Your task to perform on an android device: turn on sleep mode Image 0: 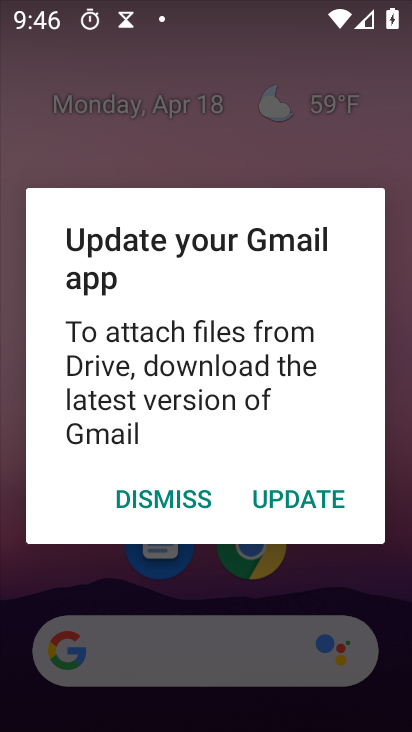
Step 0: press home button
Your task to perform on an android device: turn on sleep mode Image 1: 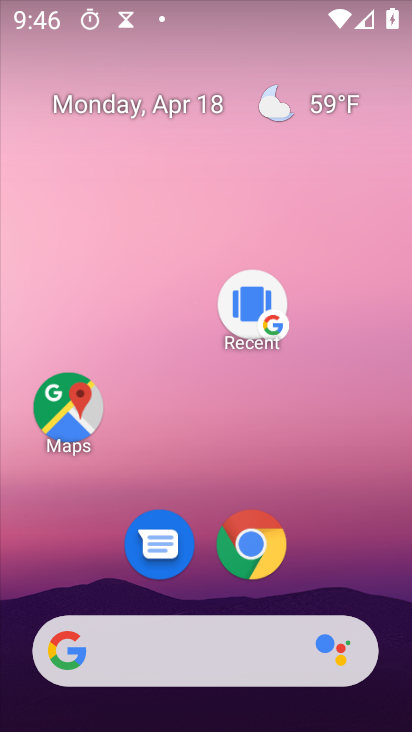
Step 1: drag from (369, 525) to (311, 233)
Your task to perform on an android device: turn on sleep mode Image 2: 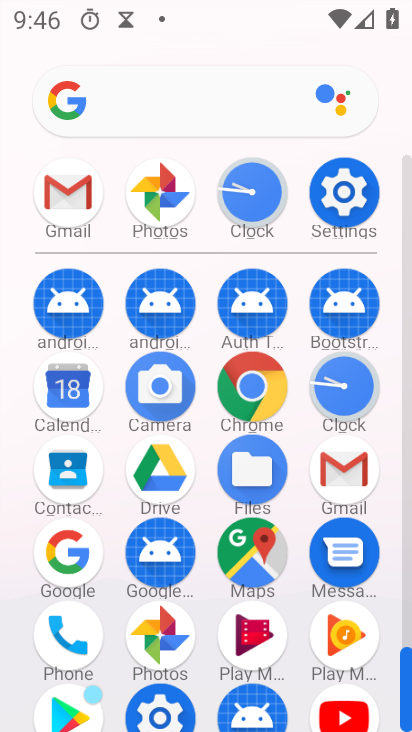
Step 2: click (363, 179)
Your task to perform on an android device: turn on sleep mode Image 3: 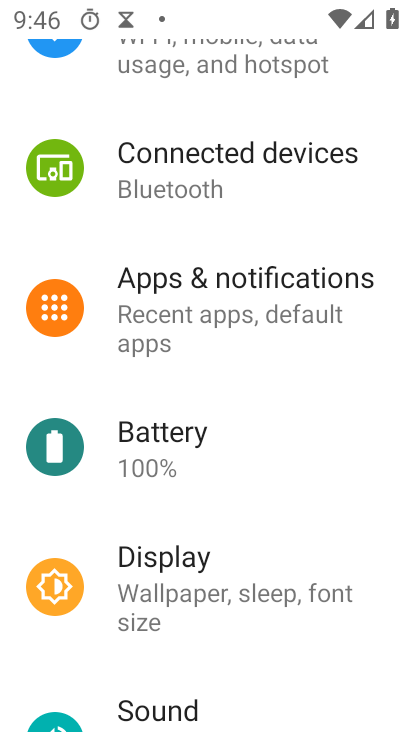
Step 3: click (307, 574)
Your task to perform on an android device: turn on sleep mode Image 4: 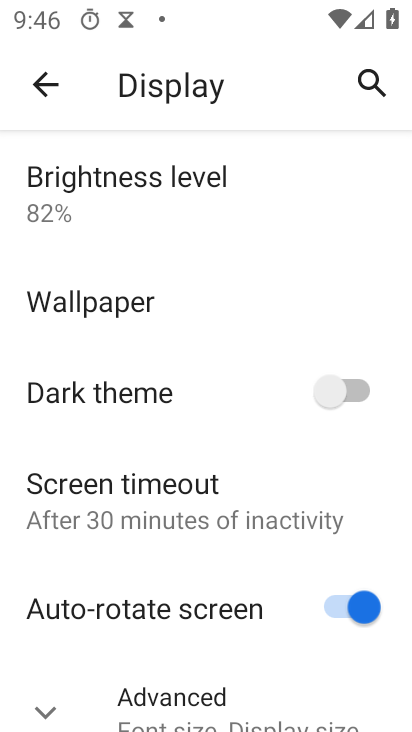
Step 4: drag from (240, 600) to (188, 305)
Your task to perform on an android device: turn on sleep mode Image 5: 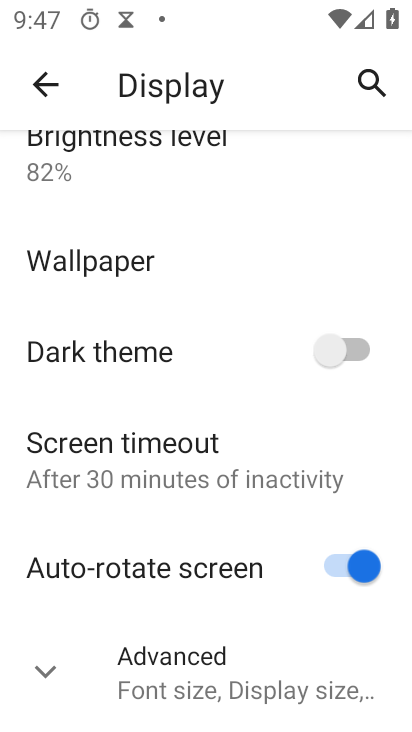
Step 5: click (235, 650)
Your task to perform on an android device: turn on sleep mode Image 6: 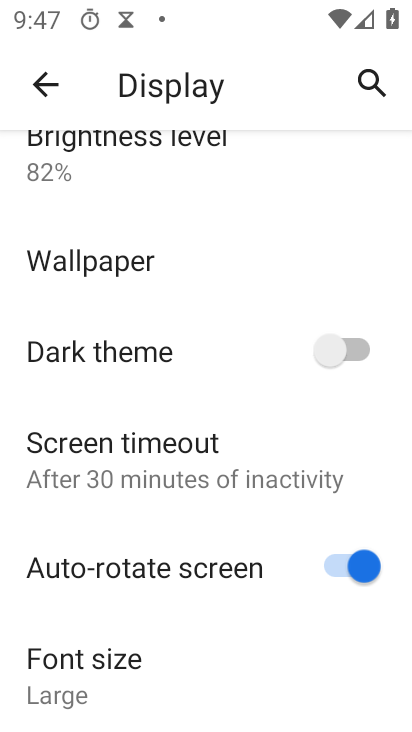
Step 6: task complete